Your task to perform on an android device: turn on location history Image 0: 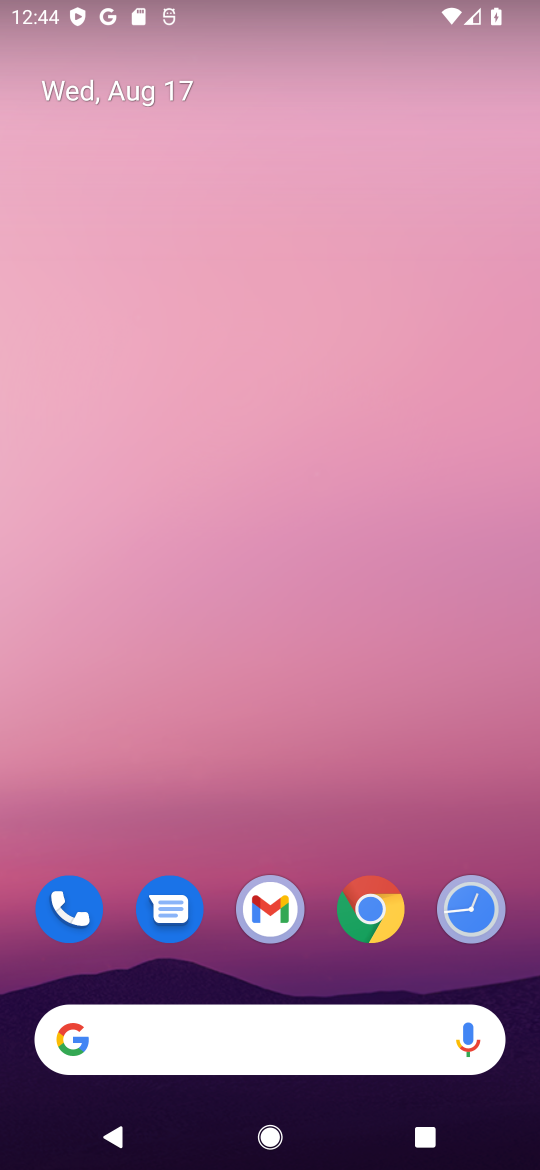
Step 0: drag from (300, 826) to (290, 193)
Your task to perform on an android device: turn on location history Image 1: 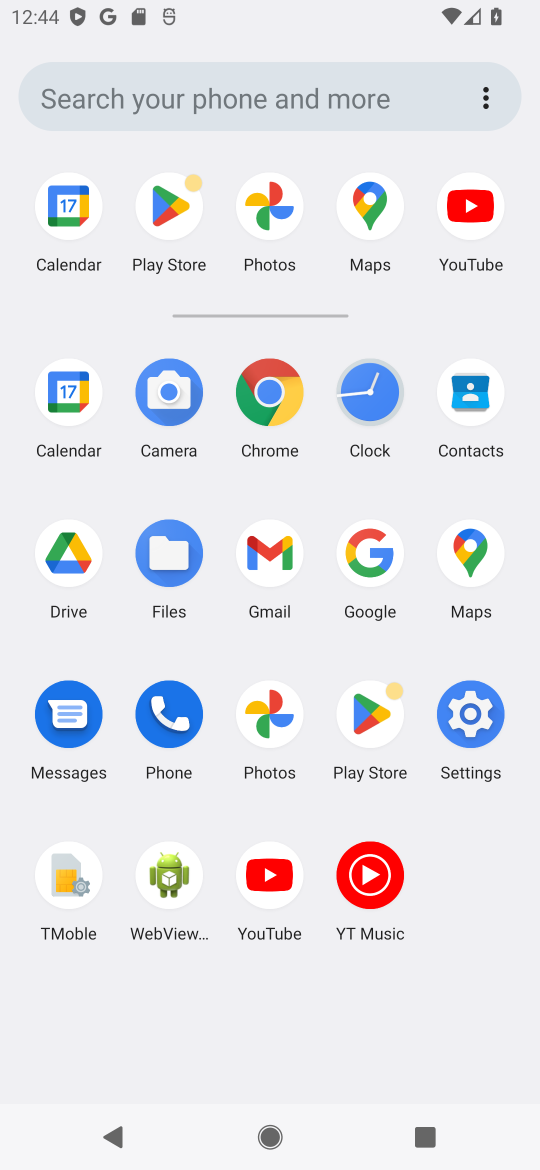
Step 1: click (465, 720)
Your task to perform on an android device: turn on location history Image 2: 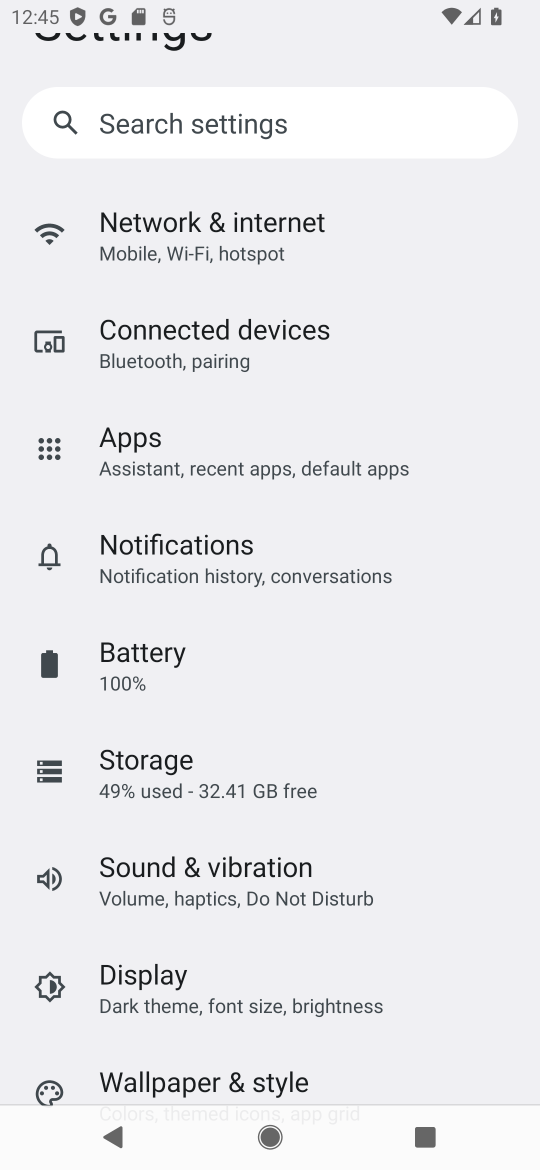
Step 2: drag from (354, 853) to (303, 342)
Your task to perform on an android device: turn on location history Image 3: 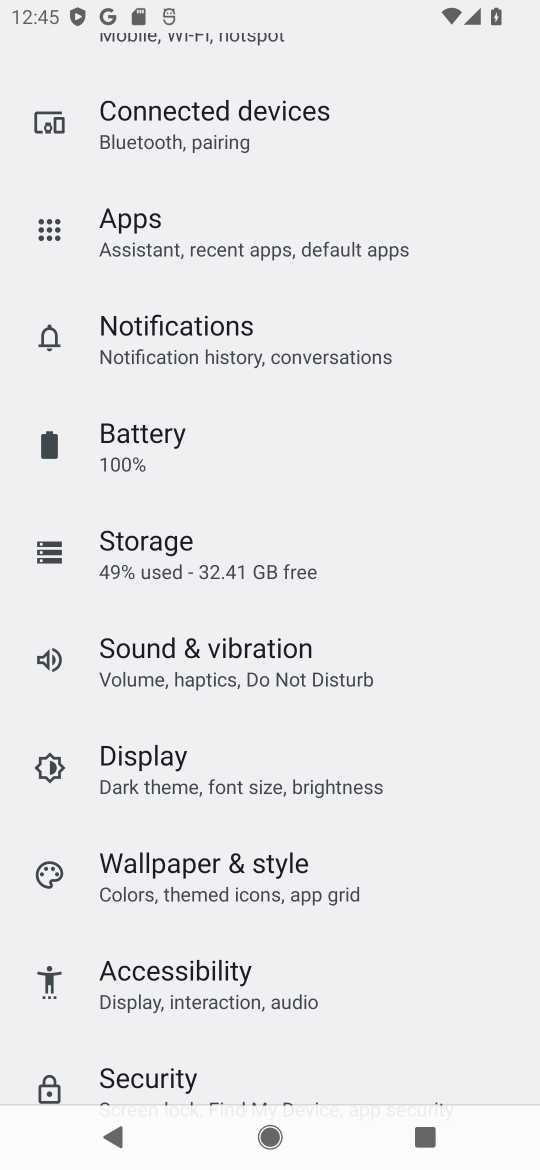
Step 3: drag from (306, 942) to (267, 439)
Your task to perform on an android device: turn on location history Image 4: 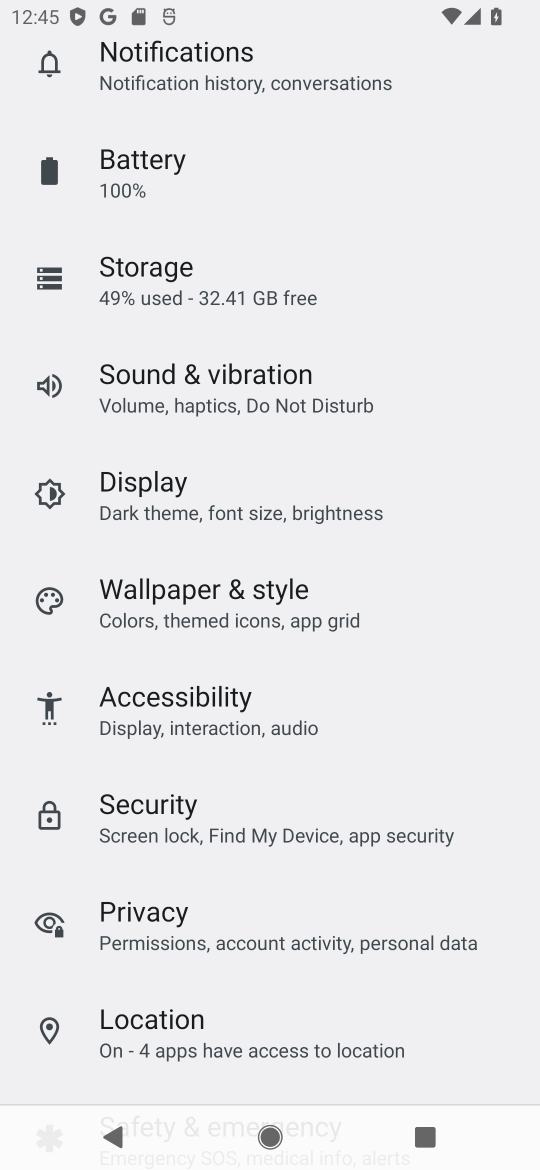
Step 4: click (158, 1021)
Your task to perform on an android device: turn on location history Image 5: 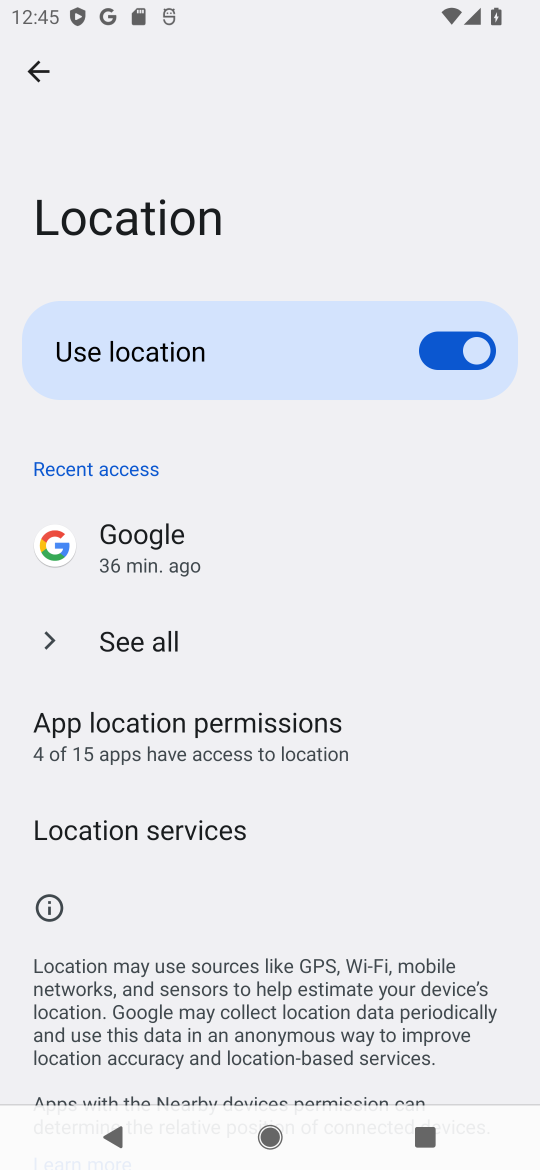
Step 5: click (160, 824)
Your task to perform on an android device: turn on location history Image 6: 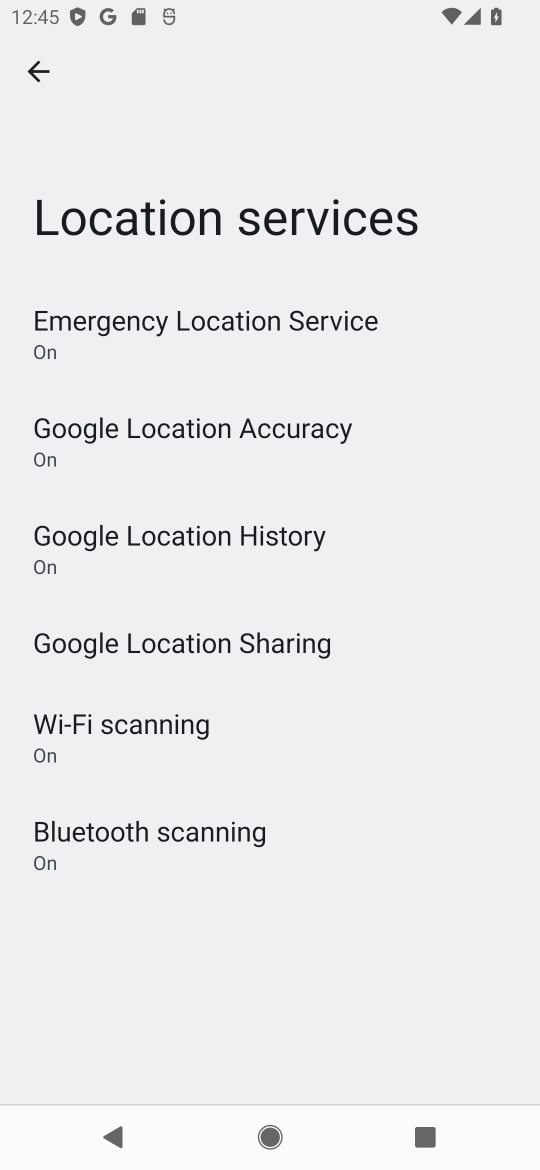
Step 6: click (193, 530)
Your task to perform on an android device: turn on location history Image 7: 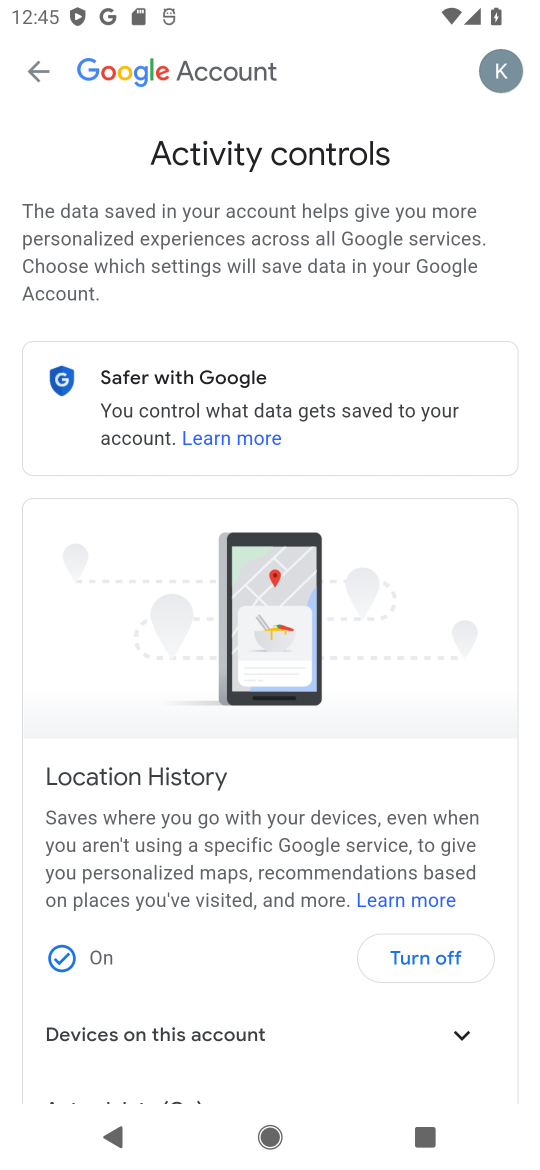
Step 7: task complete